Your task to perform on an android device: Search for sushi restaurants on Maps Image 0: 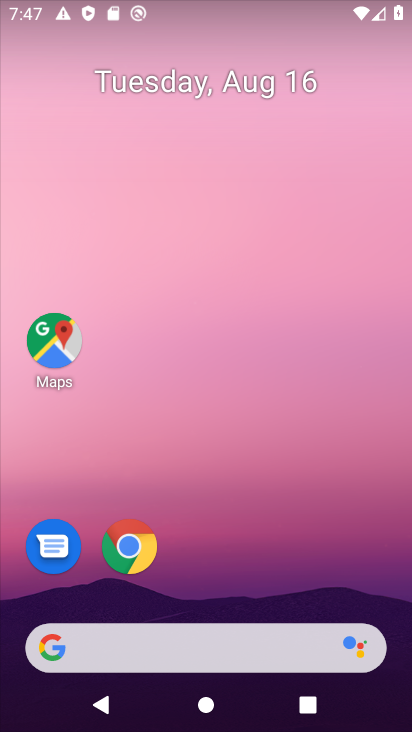
Step 0: click (53, 330)
Your task to perform on an android device: Search for sushi restaurants on Maps Image 1: 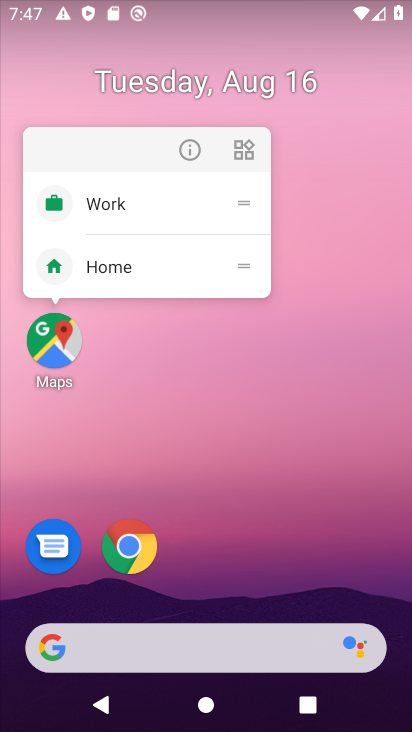
Step 1: click (57, 352)
Your task to perform on an android device: Search for sushi restaurants on Maps Image 2: 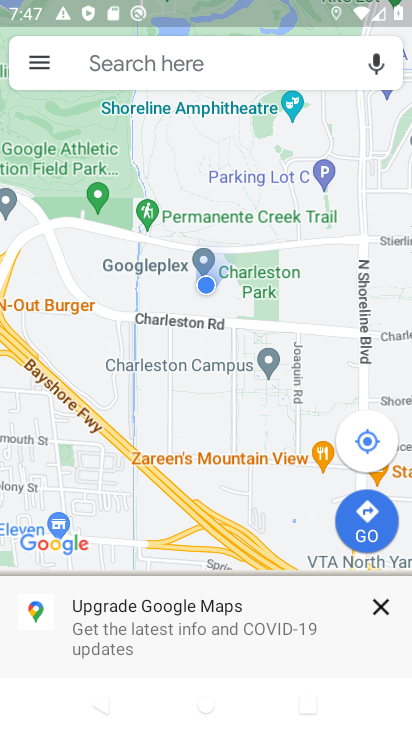
Step 2: click (204, 64)
Your task to perform on an android device: Search for sushi restaurants on Maps Image 3: 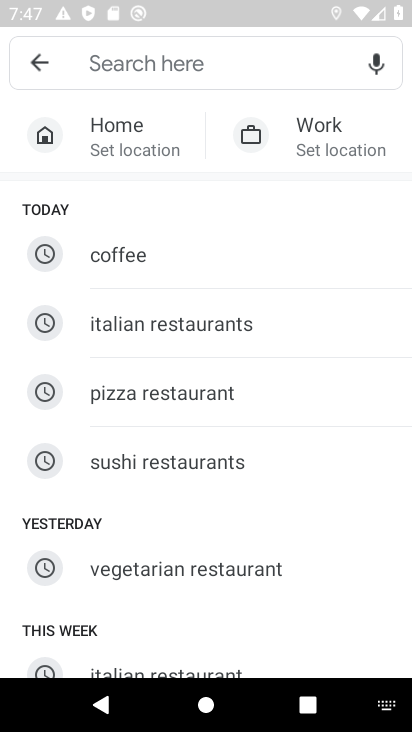
Step 3: click (203, 458)
Your task to perform on an android device: Search for sushi restaurants on Maps Image 4: 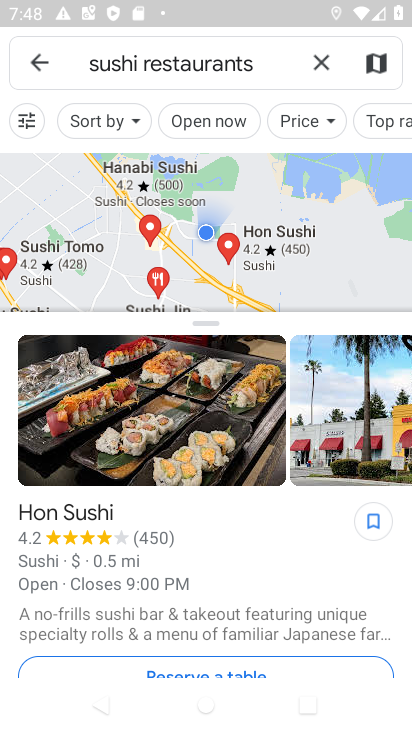
Step 4: task complete